Your task to perform on an android device: turn off priority inbox in the gmail app Image 0: 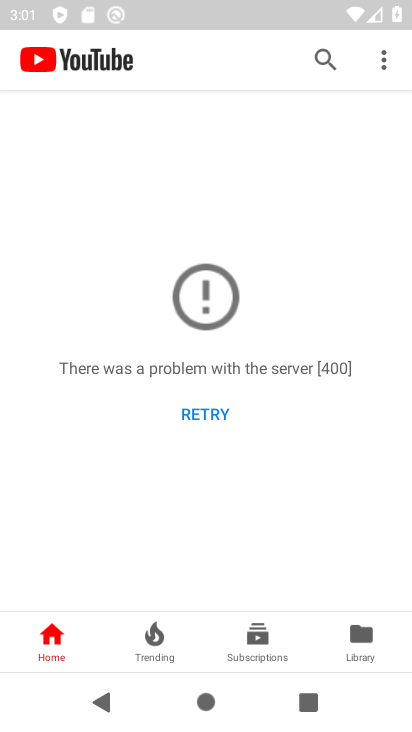
Step 0: press home button
Your task to perform on an android device: turn off priority inbox in the gmail app Image 1: 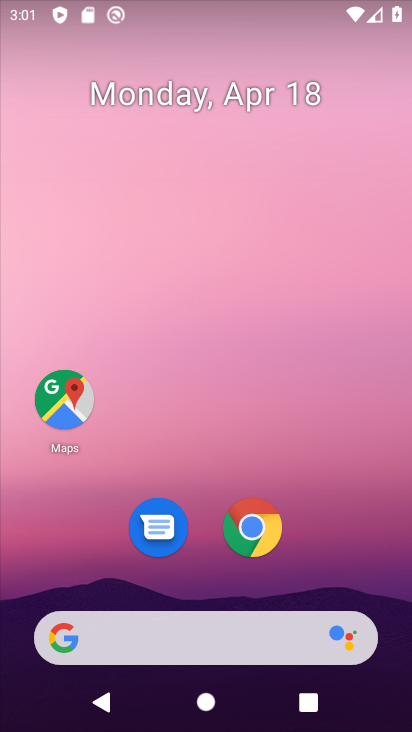
Step 1: drag from (179, 621) to (179, 138)
Your task to perform on an android device: turn off priority inbox in the gmail app Image 2: 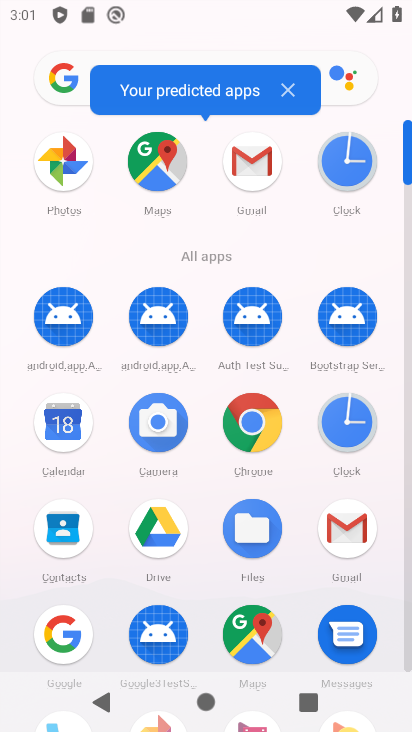
Step 2: click (338, 525)
Your task to perform on an android device: turn off priority inbox in the gmail app Image 3: 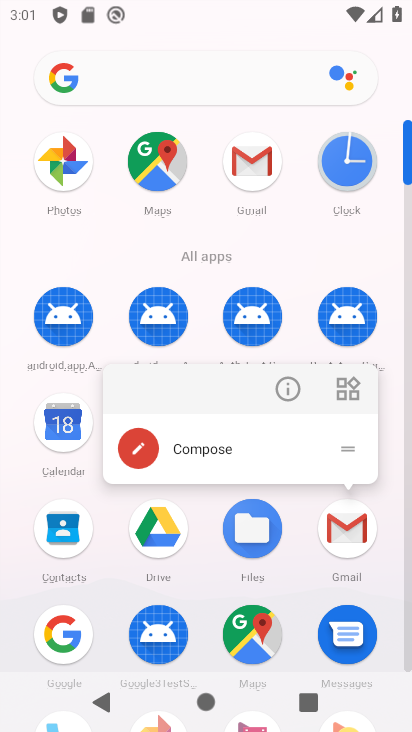
Step 3: click (355, 549)
Your task to perform on an android device: turn off priority inbox in the gmail app Image 4: 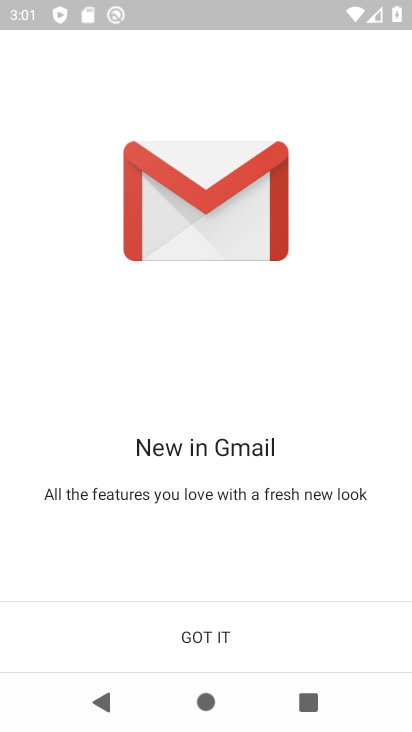
Step 4: click (218, 627)
Your task to perform on an android device: turn off priority inbox in the gmail app Image 5: 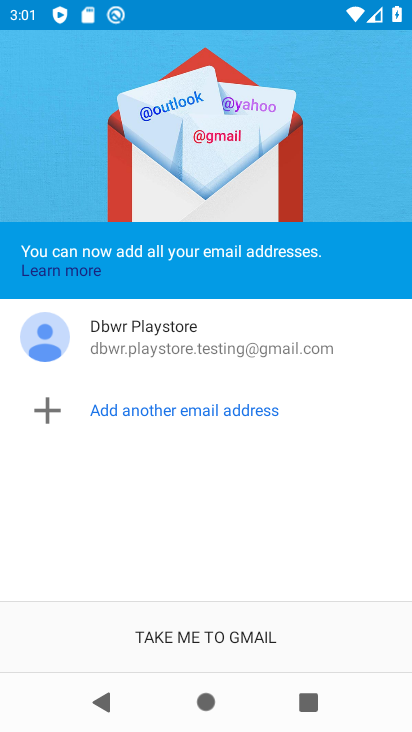
Step 5: click (218, 627)
Your task to perform on an android device: turn off priority inbox in the gmail app Image 6: 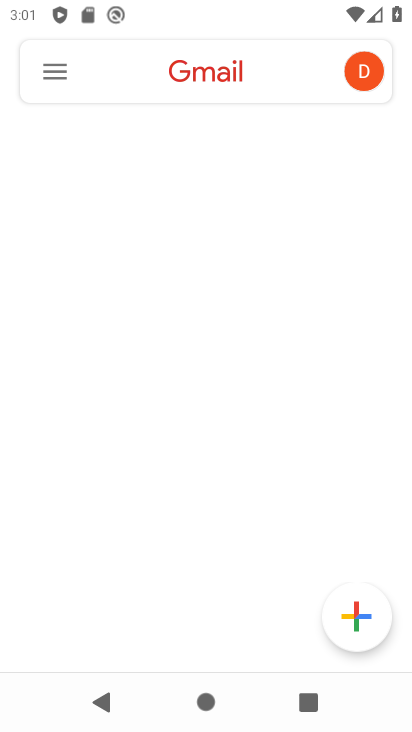
Step 6: click (218, 627)
Your task to perform on an android device: turn off priority inbox in the gmail app Image 7: 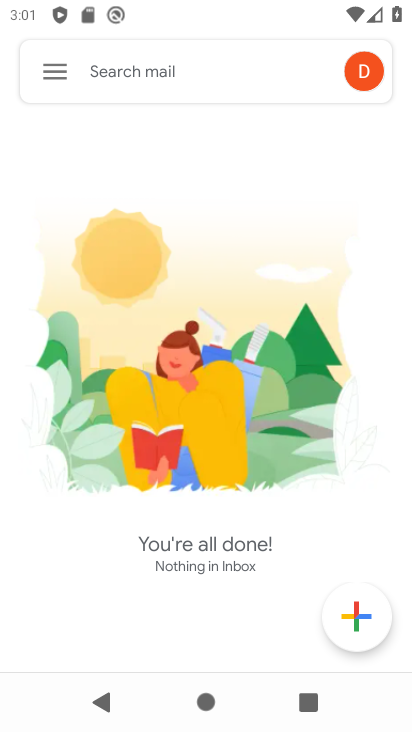
Step 7: click (59, 79)
Your task to perform on an android device: turn off priority inbox in the gmail app Image 8: 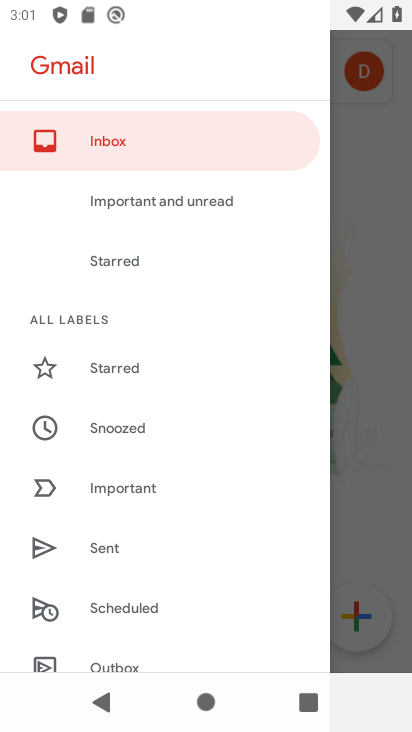
Step 8: drag from (156, 596) to (142, 140)
Your task to perform on an android device: turn off priority inbox in the gmail app Image 9: 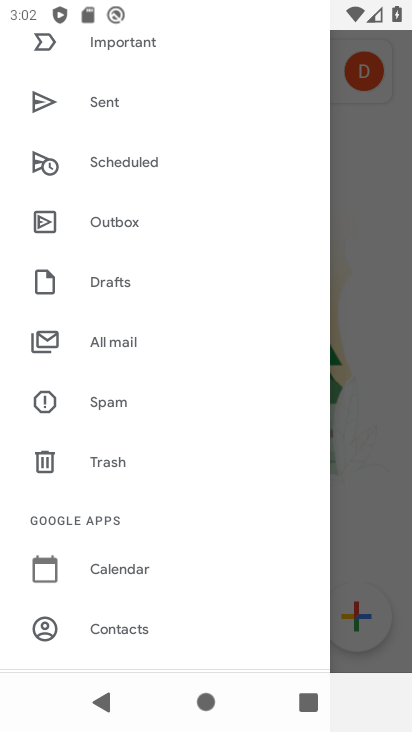
Step 9: drag from (117, 603) to (91, 111)
Your task to perform on an android device: turn off priority inbox in the gmail app Image 10: 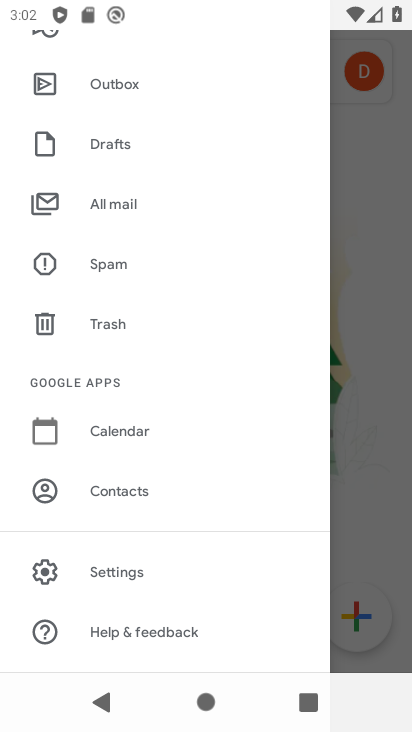
Step 10: click (107, 574)
Your task to perform on an android device: turn off priority inbox in the gmail app Image 11: 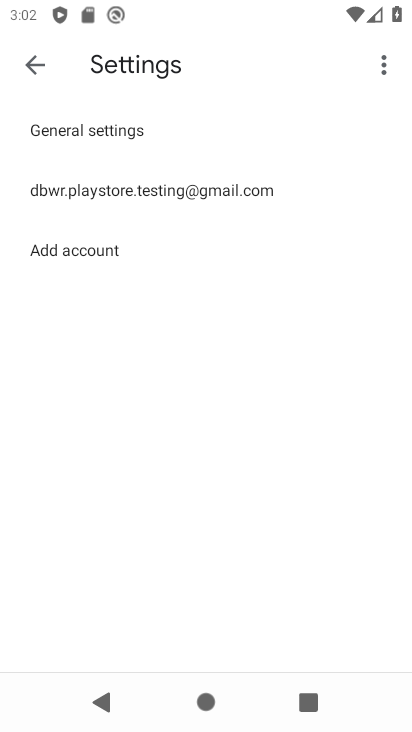
Step 11: click (91, 190)
Your task to perform on an android device: turn off priority inbox in the gmail app Image 12: 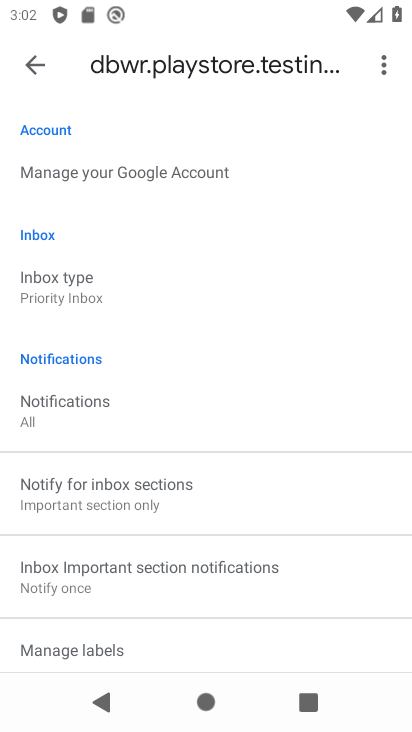
Step 12: click (74, 282)
Your task to perform on an android device: turn off priority inbox in the gmail app Image 13: 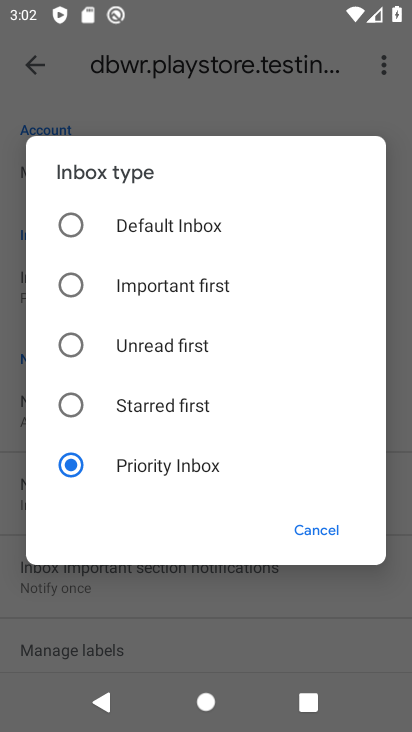
Step 13: click (128, 408)
Your task to perform on an android device: turn off priority inbox in the gmail app Image 14: 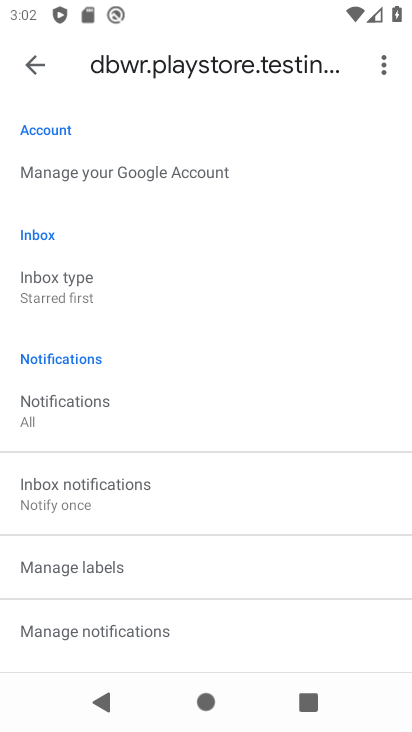
Step 14: task complete